Your task to perform on an android device: open app "Mercado Libre" (install if not already installed) and enter user name: "tolerating@yahoo.com" and password: "Kepler" Image 0: 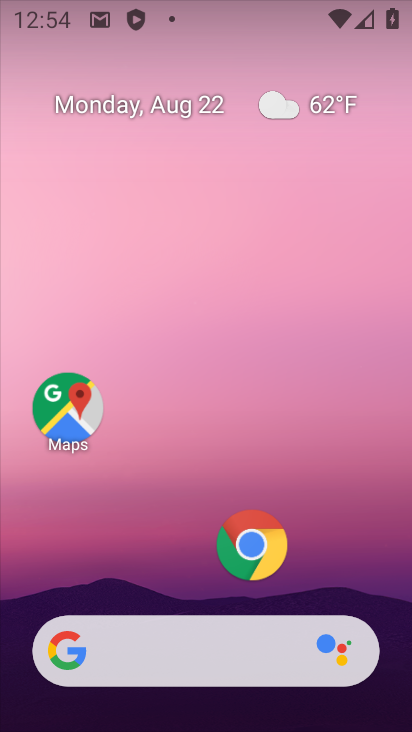
Step 0: drag from (152, 553) to (307, 88)
Your task to perform on an android device: open app "Mercado Libre" (install if not already installed) and enter user name: "tolerating@yahoo.com" and password: "Kepler" Image 1: 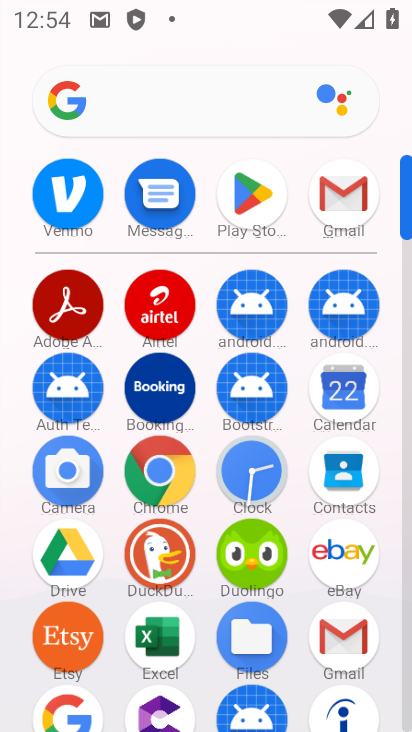
Step 1: click (251, 179)
Your task to perform on an android device: open app "Mercado Libre" (install if not already installed) and enter user name: "tolerating@yahoo.com" and password: "Kepler" Image 2: 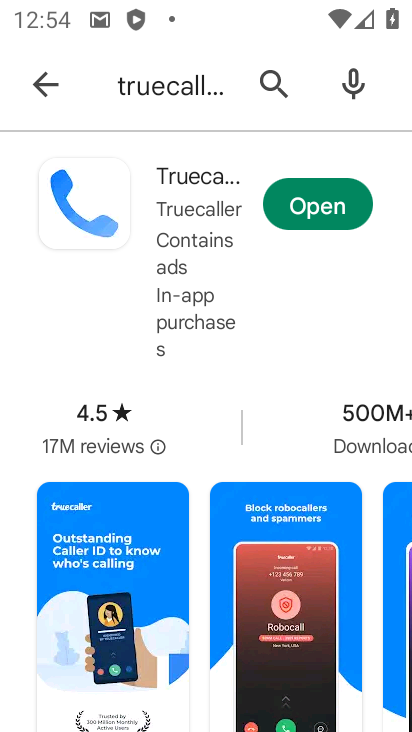
Step 2: click (264, 76)
Your task to perform on an android device: open app "Mercado Libre" (install if not already installed) and enter user name: "tolerating@yahoo.com" and password: "Kepler" Image 3: 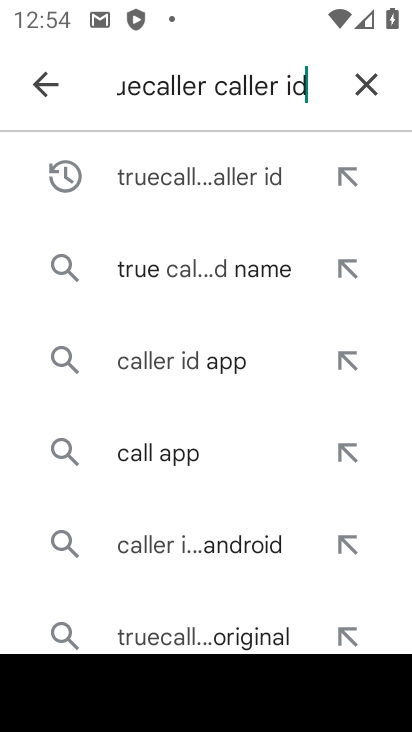
Step 3: click (357, 76)
Your task to perform on an android device: open app "Mercado Libre" (install if not already installed) and enter user name: "tolerating@yahoo.com" and password: "Kepler" Image 4: 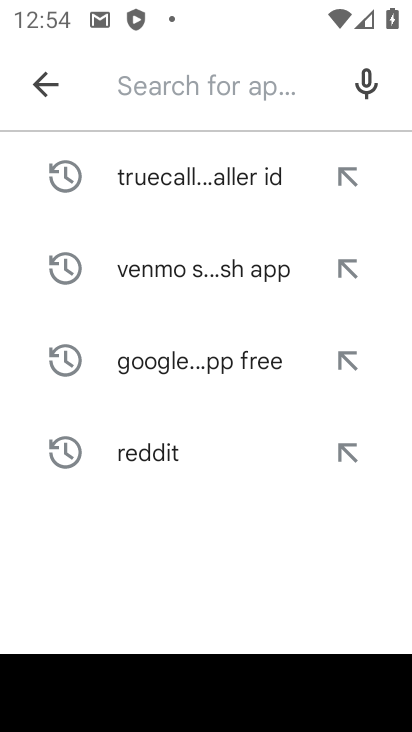
Step 4: click (161, 86)
Your task to perform on an android device: open app "Mercado Libre" (install if not already installed) and enter user name: "tolerating@yahoo.com" and password: "Kepler" Image 5: 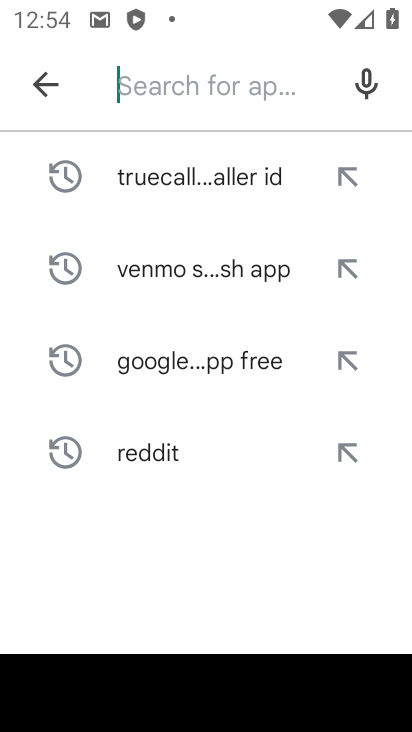
Step 5: type "Mercado Libre"
Your task to perform on an android device: open app "Mercado Libre" (install if not already installed) and enter user name: "tolerating@yahoo.com" and password: "Kepler" Image 6: 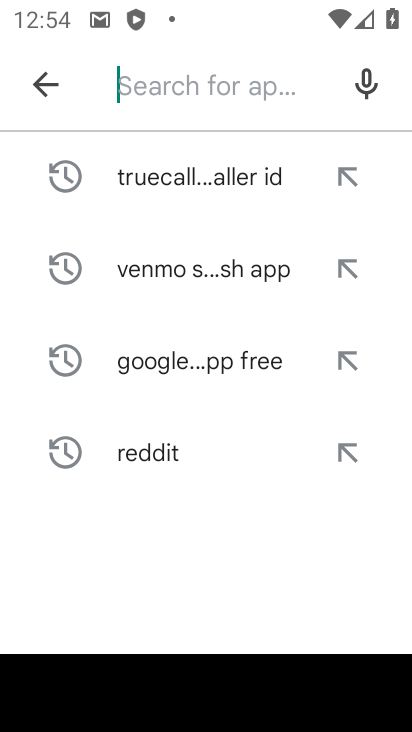
Step 6: click (135, 531)
Your task to perform on an android device: open app "Mercado Libre" (install if not already installed) and enter user name: "tolerating@yahoo.com" and password: "Kepler" Image 7: 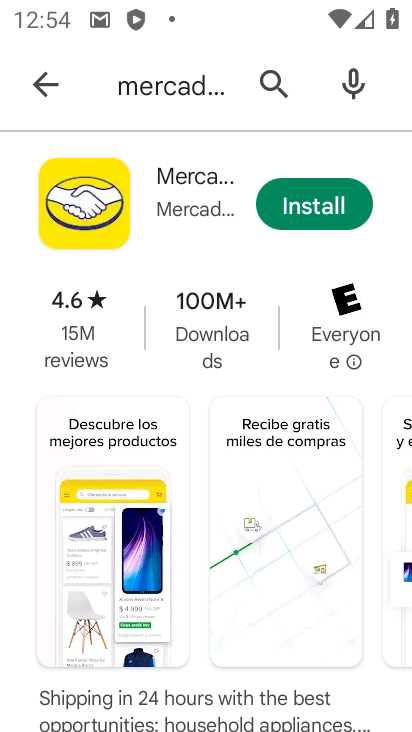
Step 7: click (275, 206)
Your task to perform on an android device: open app "Mercado Libre" (install if not already installed) and enter user name: "tolerating@yahoo.com" and password: "Kepler" Image 8: 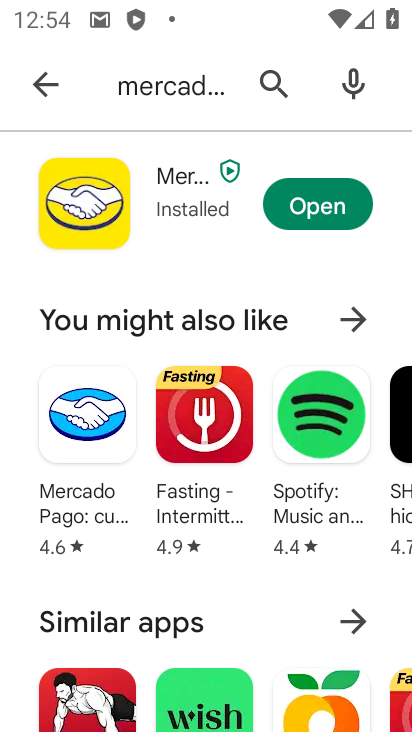
Step 8: click (303, 214)
Your task to perform on an android device: open app "Mercado Libre" (install if not already installed) and enter user name: "tolerating@yahoo.com" and password: "Kepler" Image 9: 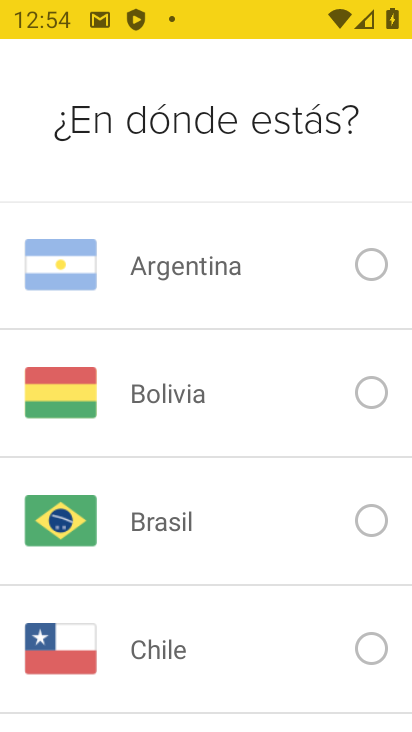
Step 9: task complete